Your task to perform on an android device: toggle notification dots Image 0: 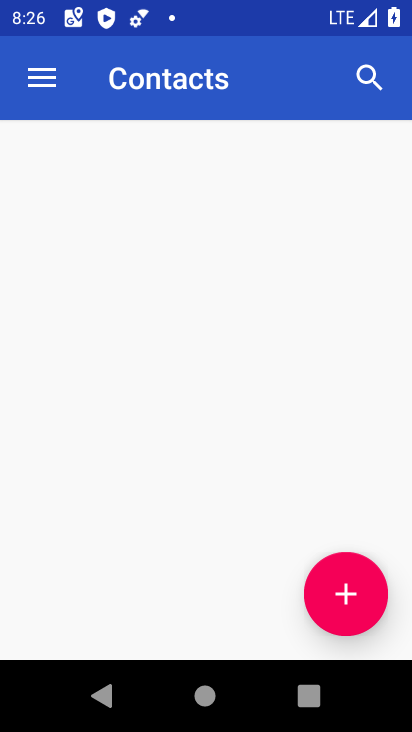
Step 0: drag from (236, 603) to (246, 215)
Your task to perform on an android device: toggle notification dots Image 1: 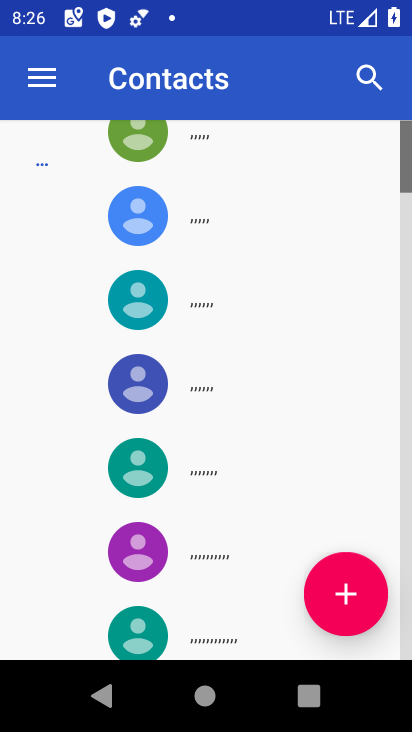
Step 1: press home button
Your task to perform on an android device: toggle notification dots Image 2: 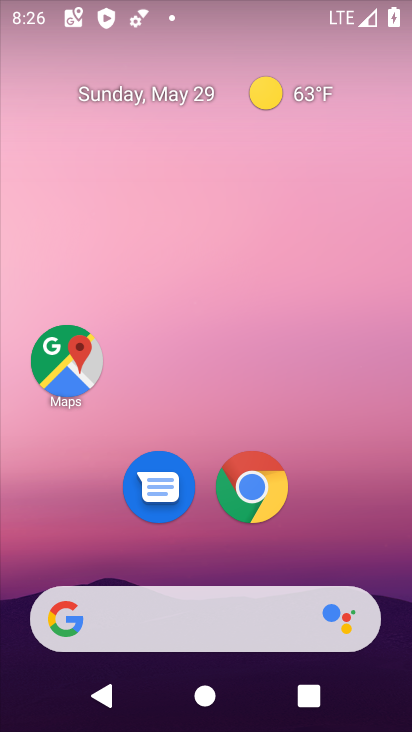
Step 2: drag from (274, 487) to (274, 92)
Your task to perform on an android device: toggle notification dots Image 3: 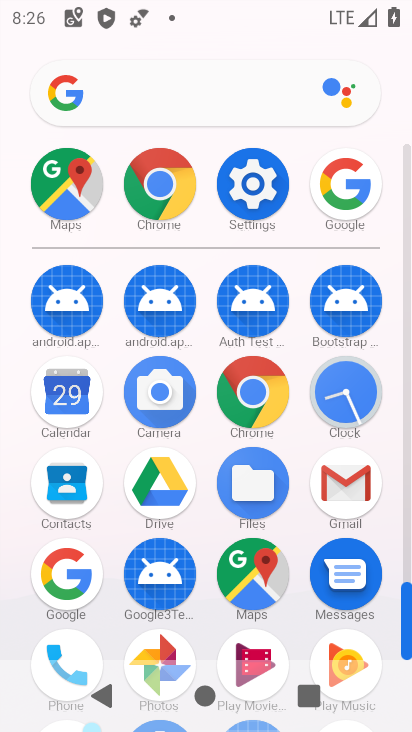
Step 3: click (267, 191)
Your task to perform on an android device: toggle notification dots Image 4: 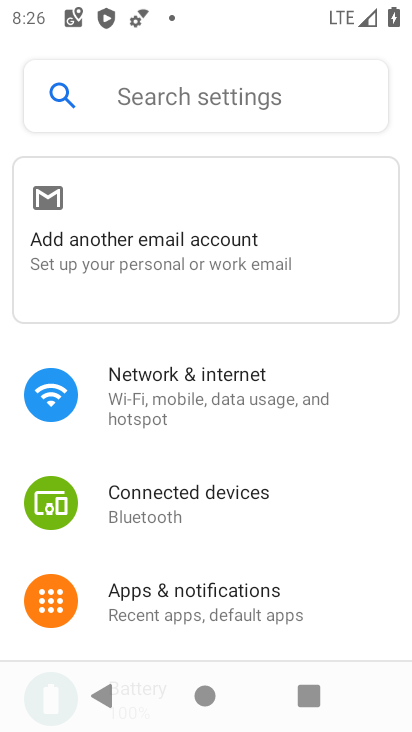
Step 4: click (206, 594)
Your task to perform on an android device: toggle notification dots Image 5: 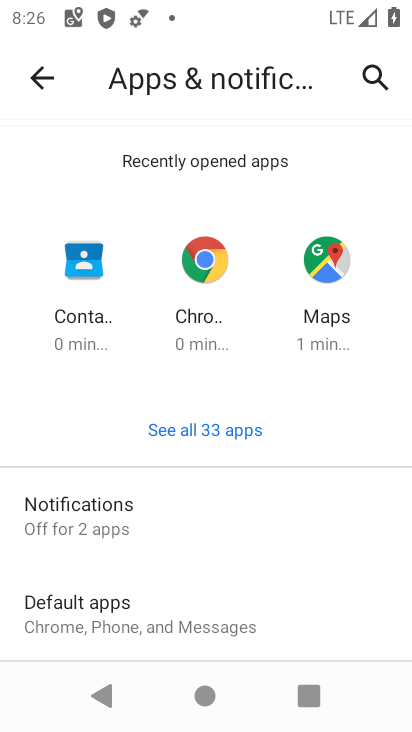
Step 5: click (211, 508)
Your task to perform on an android device: toggle notification dots Image 6: 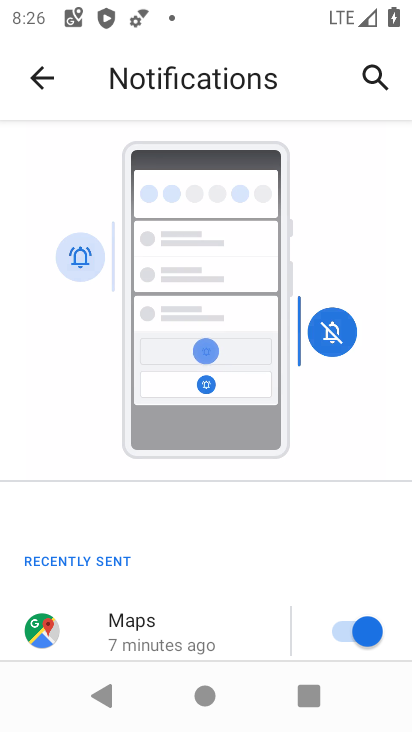
Step 6: drag from (199, 570) to (194, 291)
Your task to perform on an android device: toggle notification dots Image 7: 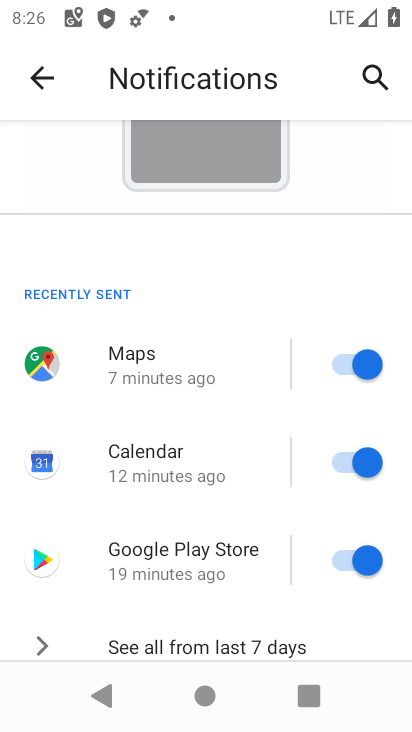
Step 7: drag from (181, 548) to (181, 343)
Your task to perform on an android device: toggle notification dots Image 8: 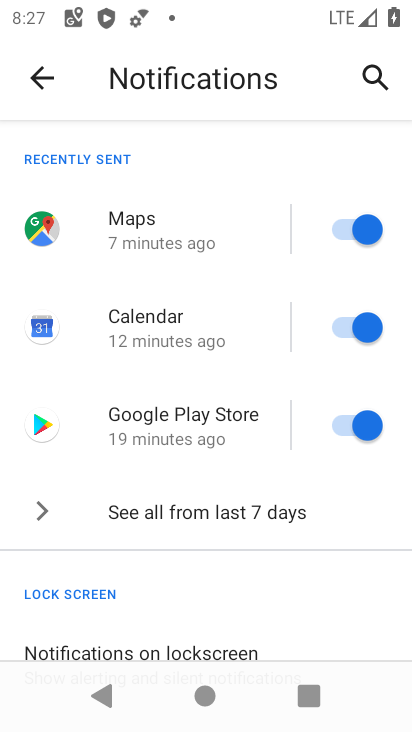
Step 8: drag from (183, 586) to (184, 326)
Your task to perform on an android device: toggle notification dots Image 9: 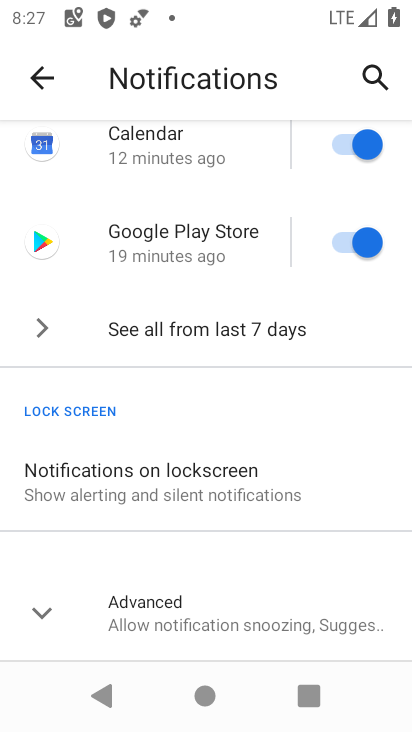
Step 9: click (164, 604)
Your task to perform on an android device: toggle notification dots Image 10: 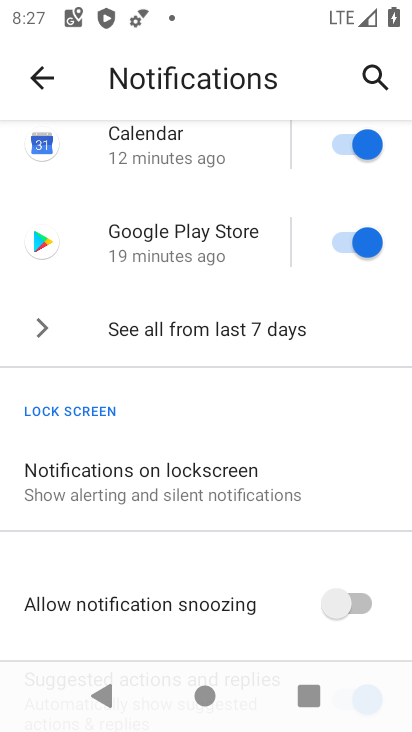
Step 10: drag from (165, 562) to (171, 245)
Your task to perform on an android device: toggle notification dots Image 11: 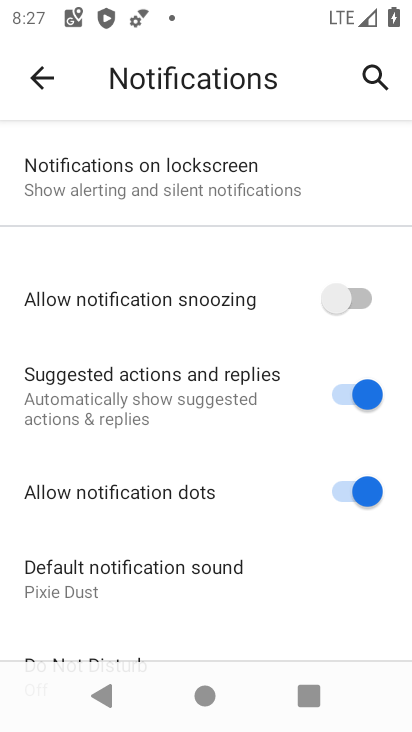
Step 11: drag from (186, 528) to (190, 357)
Your task to perform on an android device: toggle notification dots Image 12: 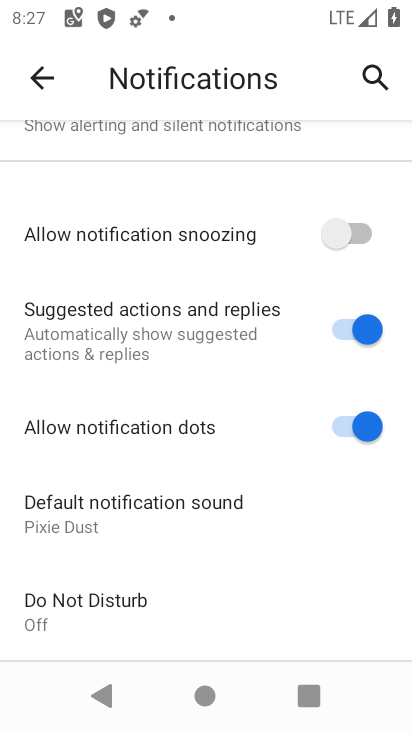
Step 12: click (329, 439)
Your task to perform on an android device: toggle notification dots Image 13: 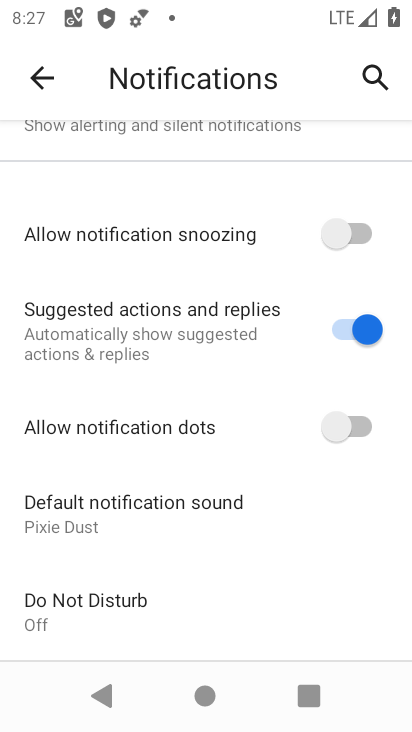
Step 13: task complete